Your task to perform on an android device: turn off airplane mode Image 0: 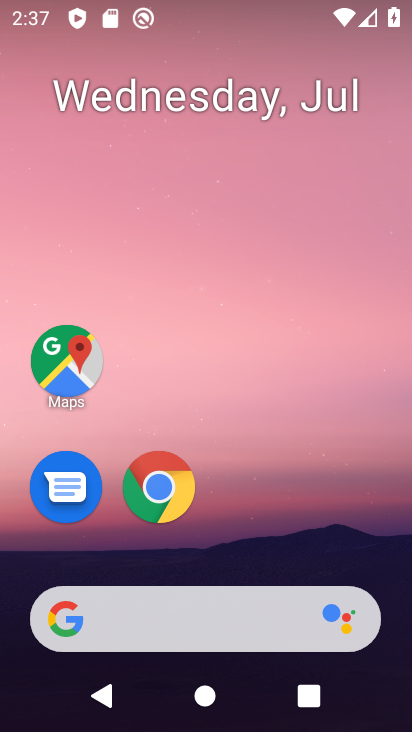
Step 0: drag from (388, 566) to (349, 166)
Your task to perform on an android device: turn off airplane mode Image 1: 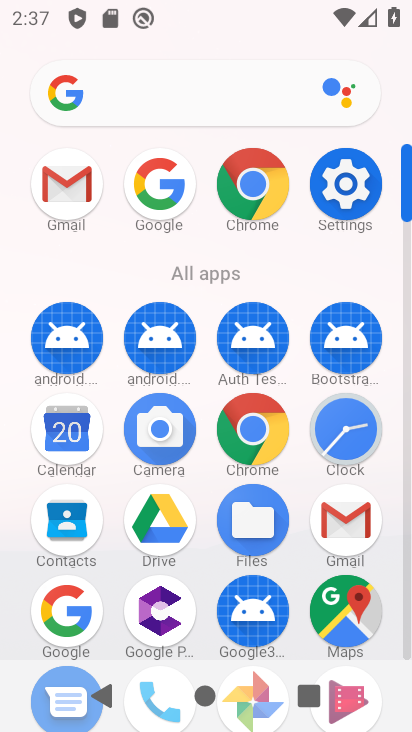
Step 1: click (350, 203)
Your task to perform on an android device: turn off airplane mode Image 2: 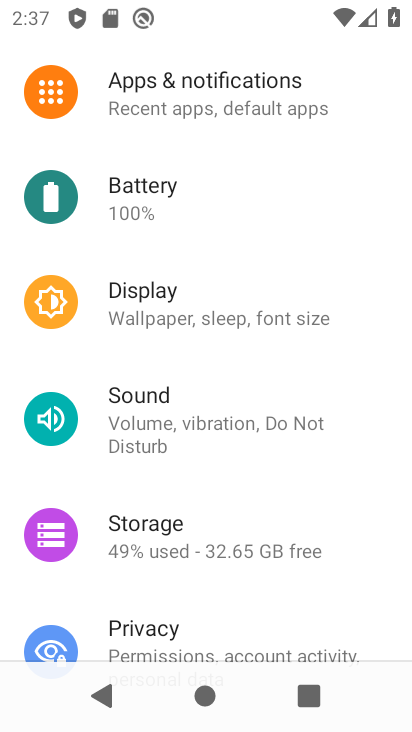
Step 2: drag from (250, 134) to (260, 444)
Your task to perform on an android device: turn off airplane mode Image 3: 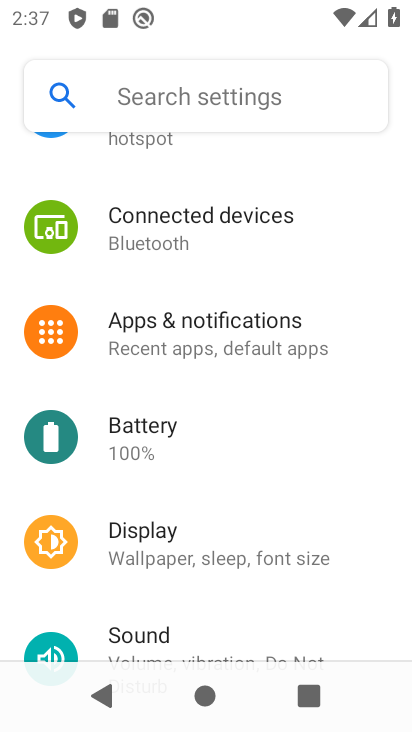
Step 3: drag from (243, 463) to (246, 551)
Your task to perform on an android device: turn off airplane mode Image 4: 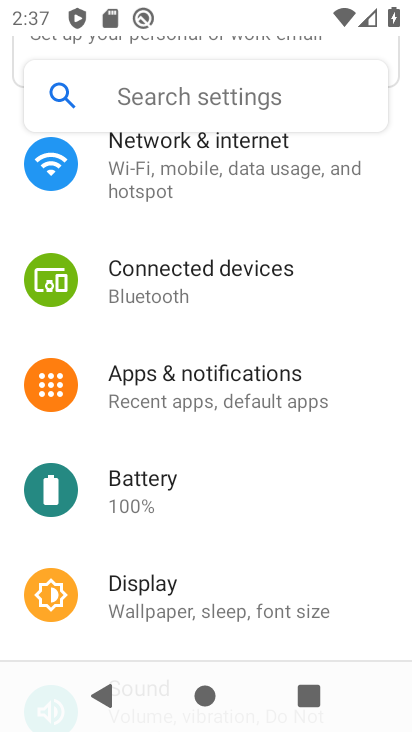
Step 4: click (216, 181)
Your task to perform on an android device: turn off airplane mode Image 5: 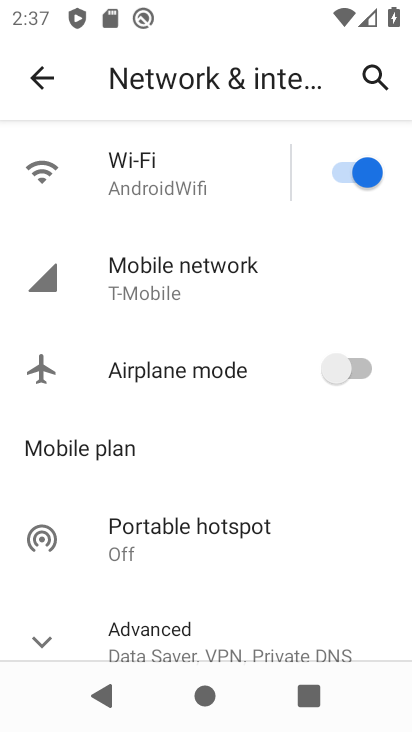
Step 5: task complete